Your task to perform on an android device: turn pop-ups on in chrome Image 0: 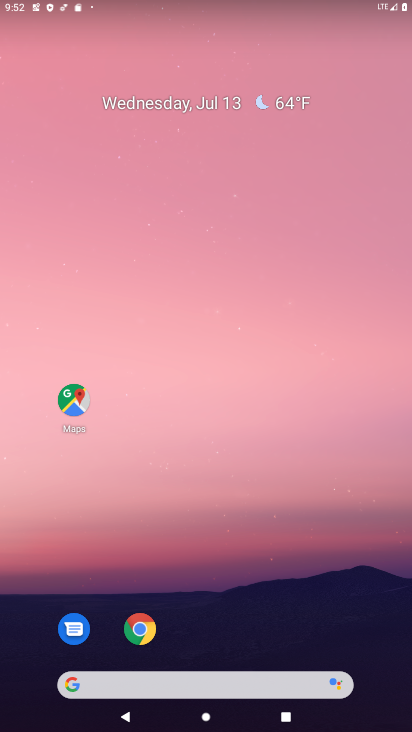
Step 0: click (144, 625)
Your task to perform on an android device: turn pop-ups on in chrome Image 1: 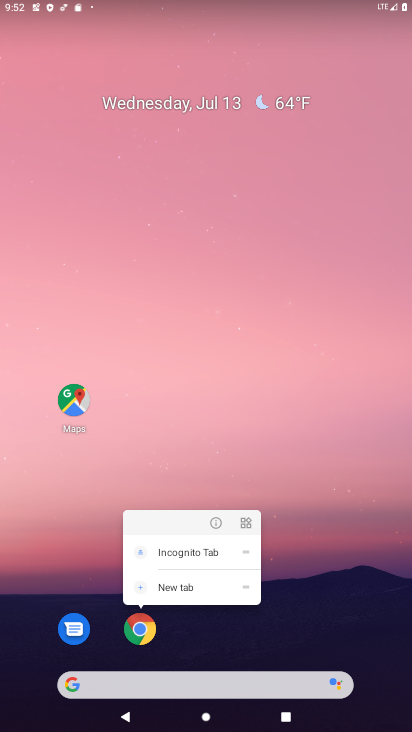
Step 1: click (136, 625)
Your task to perform on an android device: turn pop-ups on in chrome Image 2: 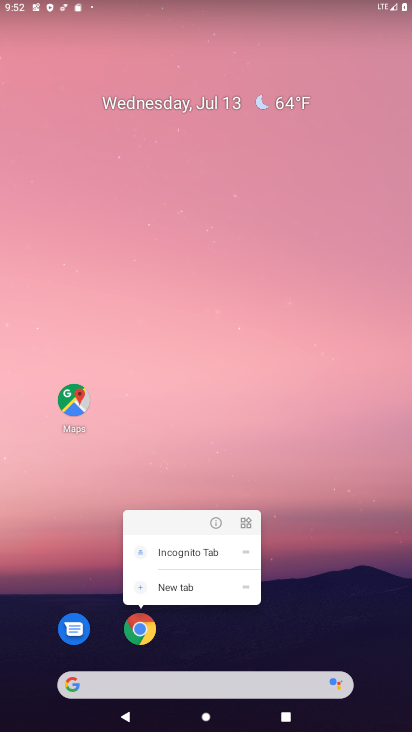
Step 2: click (298, 627)
Your task to perform on an android device: turn pop-ups on in chrome Image 3: 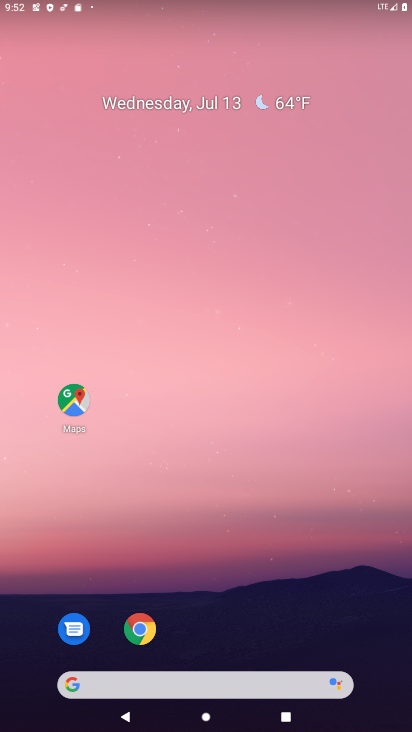
Step 3: drag from (275, 631) to (265, 188)
Your task to perform on an android device: turn pop-ups on in chrome Image 4: 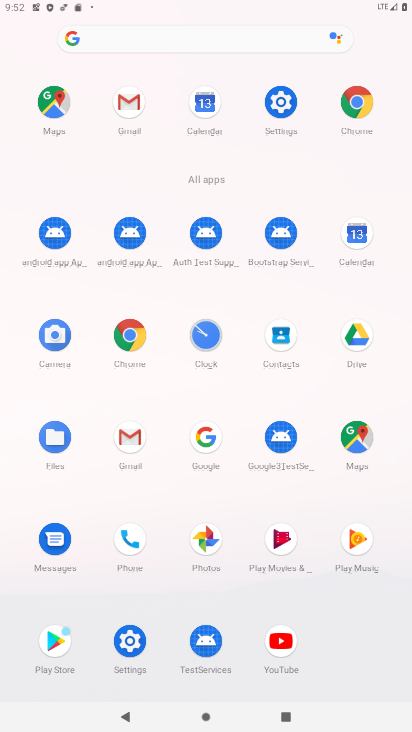
Step 4: click (357, 99)
Your task to perform on an android device: turn pop-ups on in chrome Image 5: 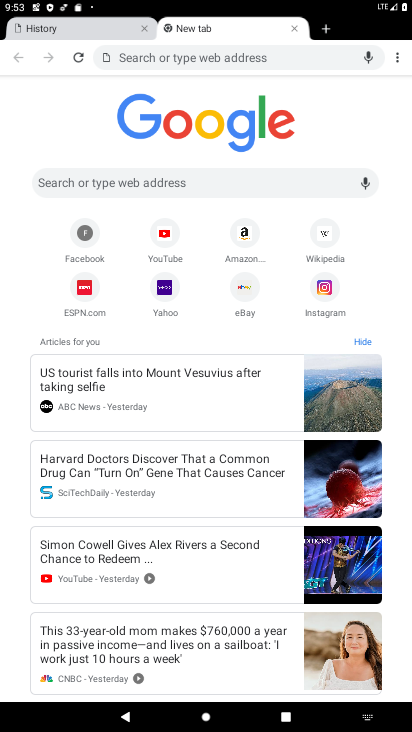
Step 5: click (392, 55)
Your task to perform on an android device: turn pop-ups on in chrome Image 6: 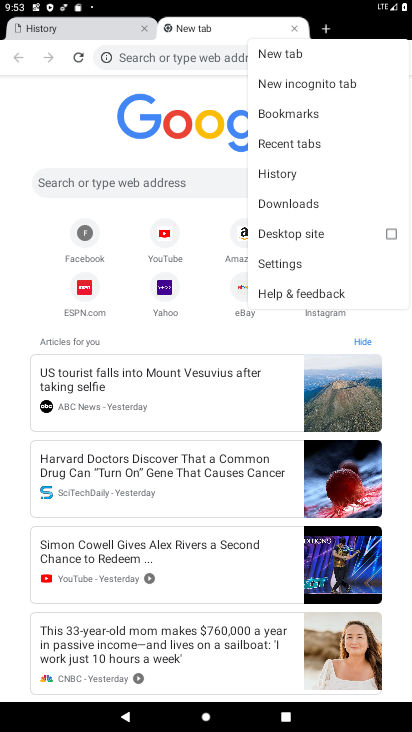
Step 6: click (282, 266)
Your task to perform on an android device: turn pop-ups on in chrome Image 7: 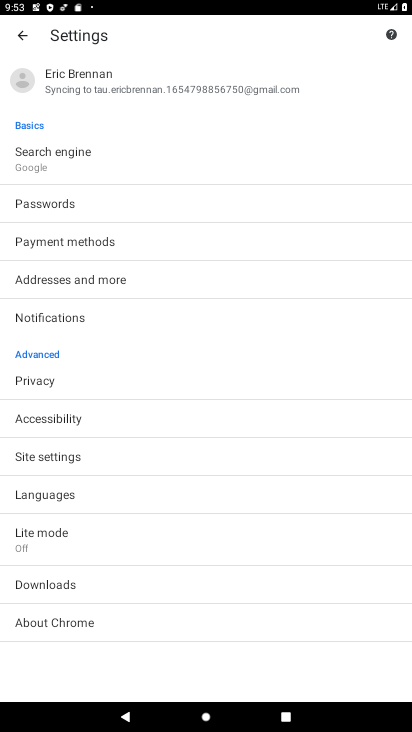
Step 7: click (95, 460)
Your task to perform on an android device: turn pop-ups on in chrome Image 8: 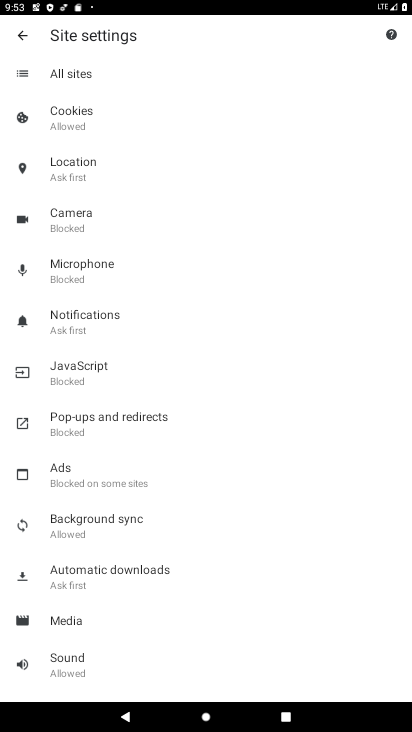
Step 8: click (142, 405)
Your task to perform on an android device: turn pop-ups on in chrome Image 9: 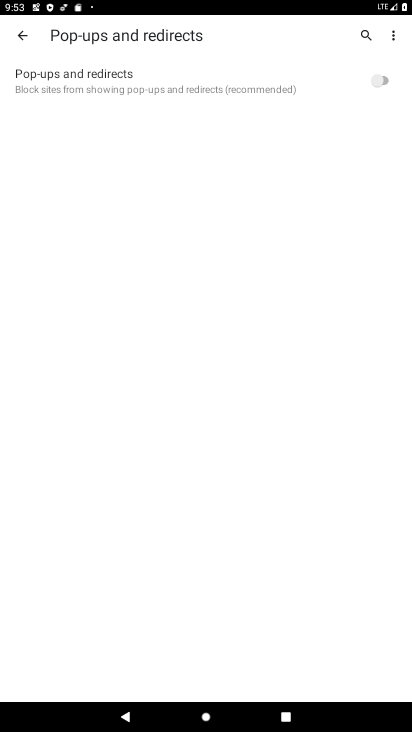
Step 9: click (378, 84)
Your task to perform on an android device: turn pop-ups on in chrome Image 10: 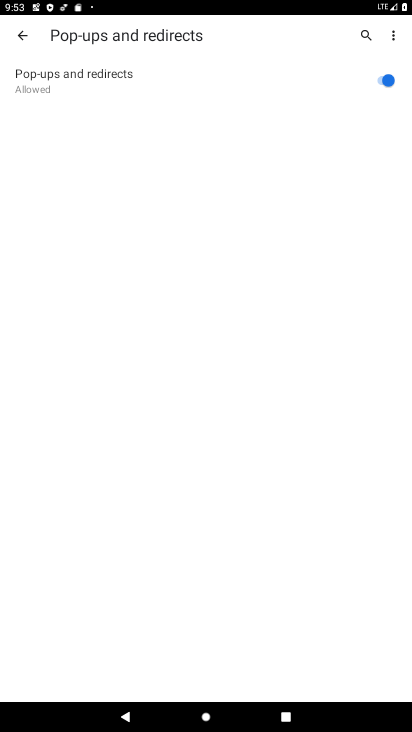
Step 10: task complete